Your task to perform on an android device: visit the assistant section in the google photos Image 0: 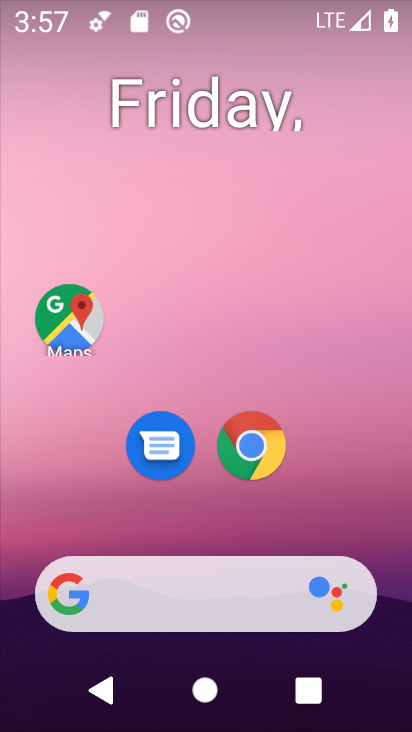
Step 0: drag from (401, 579) to (307, 291)
Your task to perform on an android device: visit the assistant section in the google photos Image 1: 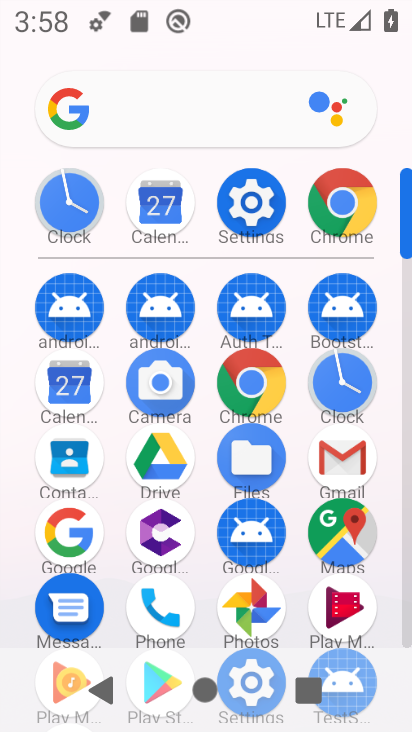
Step 1: click (256, 614)
Your task to perform on an android device: visit the assistant section in the google photos Image 2: 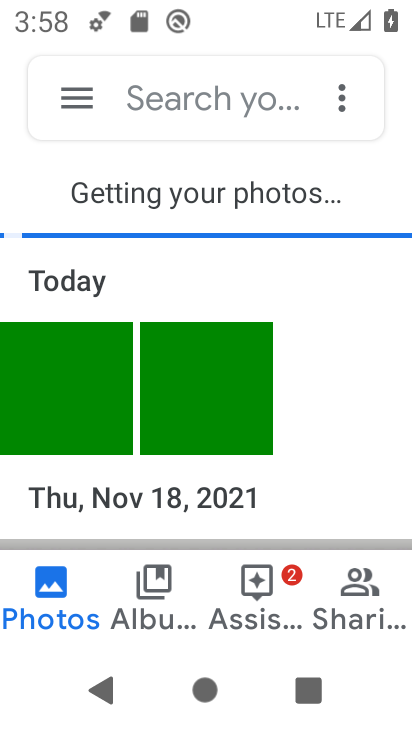
Step 2: click (254, 601)
Your task to perform on an android device: visit the assistant section in the google photos Image 3: 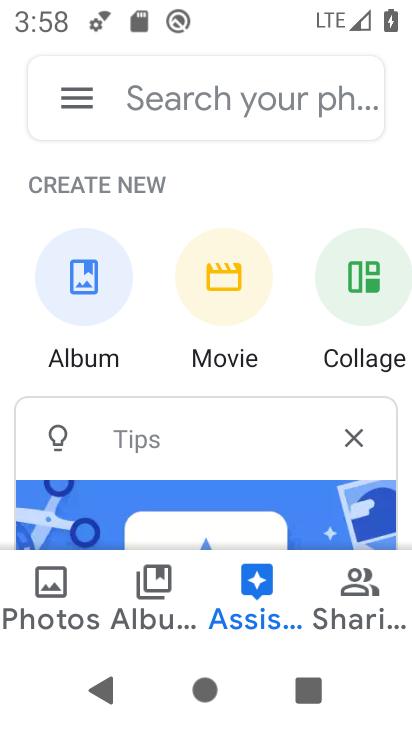
Step 3: task complete